Your task to perform on an android device: find which apps use the phone's location Image 0: 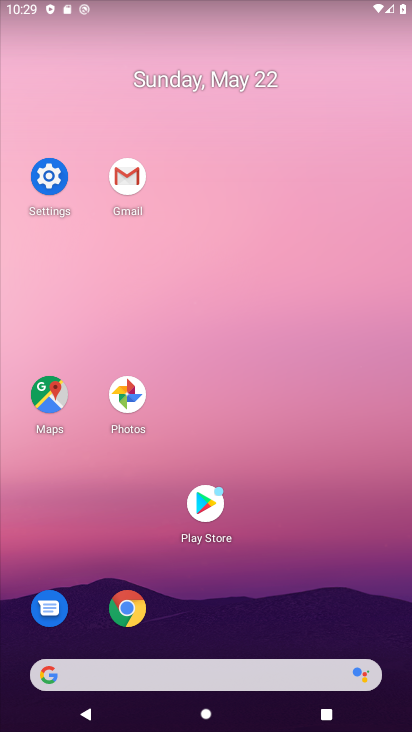
Step 0: click (55, 183)
Your task to perform on an android device: find which apps use the phone's location Image 1: 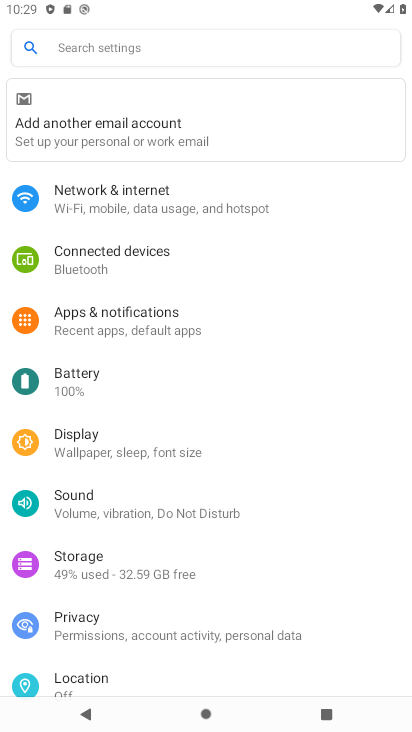
Step 1: click (125, 681)
Your task to perform on an android device: find which apps use the phone's location Image 2: 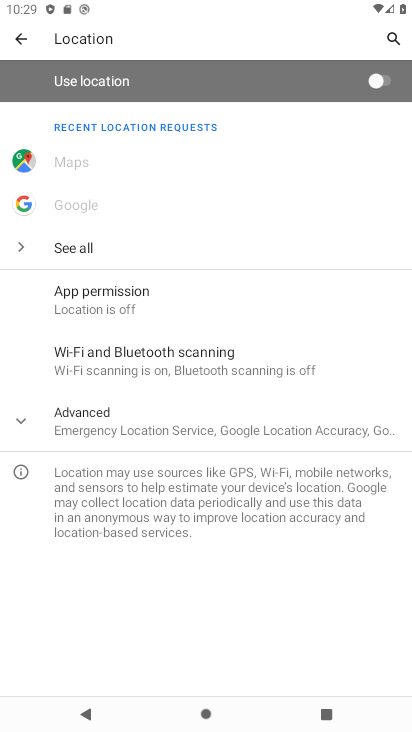
Step 2: task complete